Your task to perform on an android device: Open CNN.com Image 0: 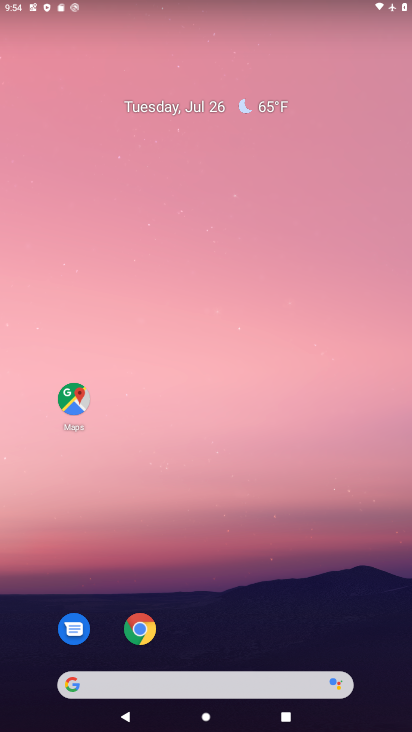
Step 0: drag from (327, 576) to (282, 67)
Your task to perform on an android device: Open CNN.com Image 1: 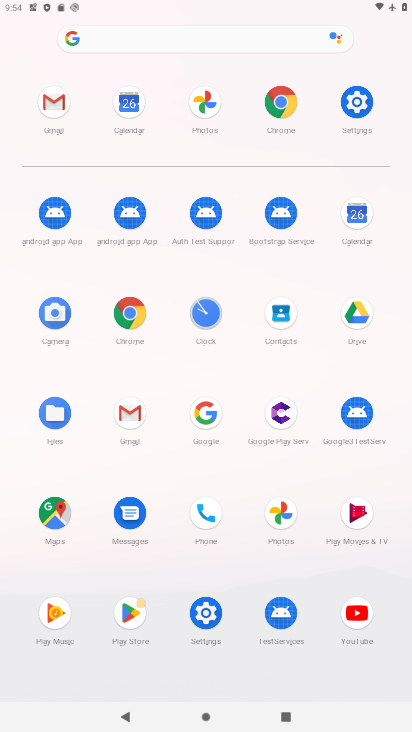
Step 1: click (280, 103)
Your task to perform on an android device: Open CNN.com Image 2: 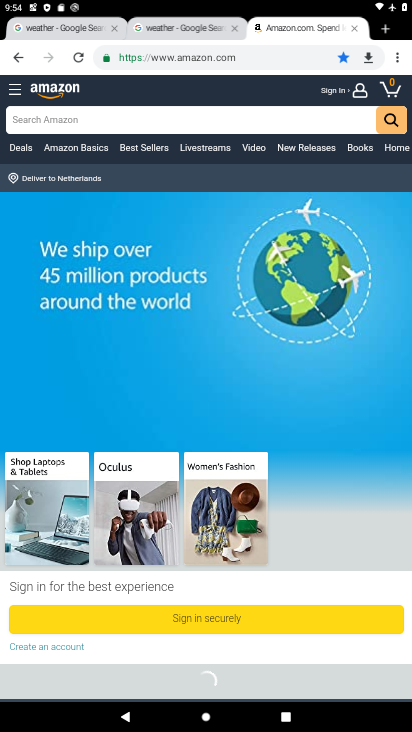
Step 2: click (243, 52)
Your task to perform on an android device: Open CNN.com Image 3: 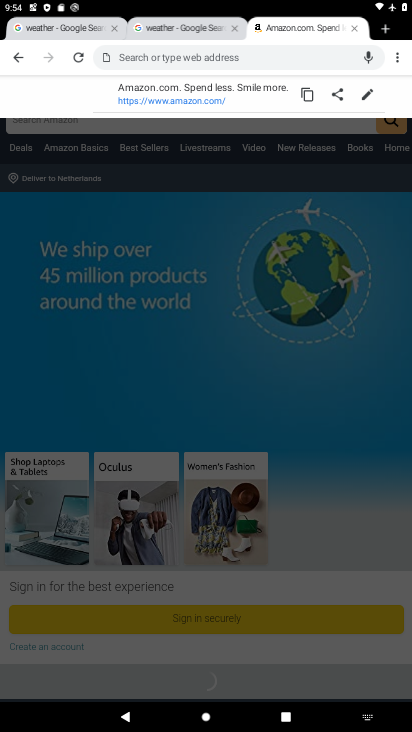
Step 3: type "cnn.com"
Your task to perform on an android device: Open CNN.com Image 4: 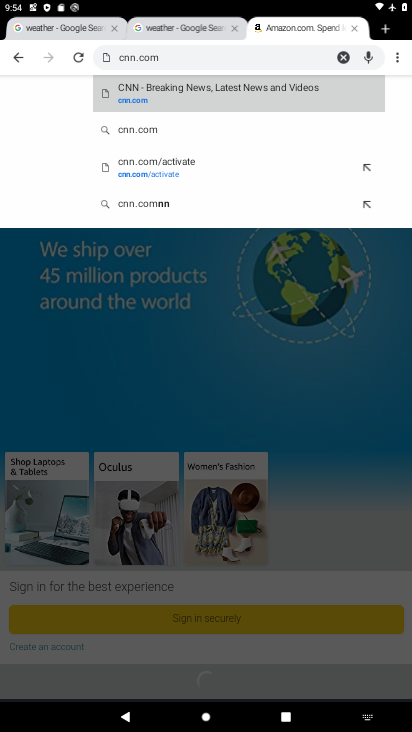
Step 4: click (186, 103)
Your task to perform on an android device: Open CNN.com Image 5: 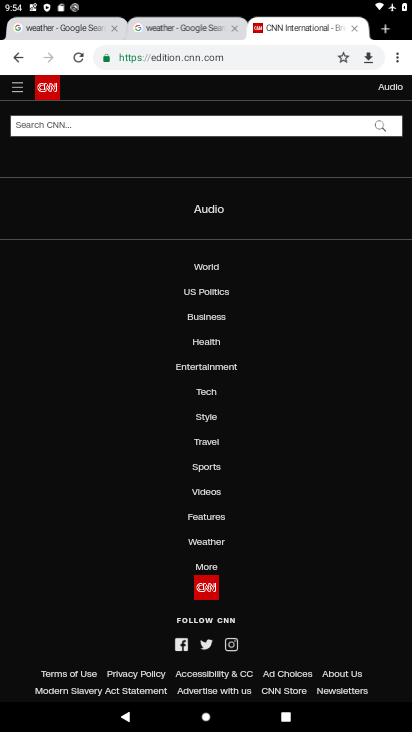
Step 5: task complete